Your task to perform on an android device: empty trash in the gmail app Image 0: 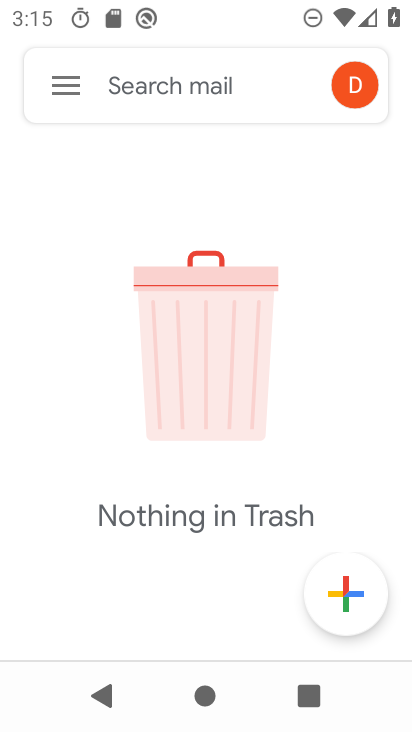
Step 0: task complete